Your task to perform on an android device: star an email in the gmail app Image 0: 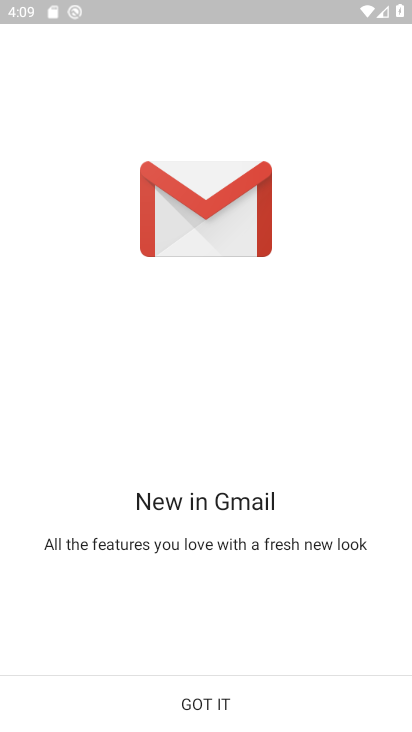
Step 0: press home button
Your task to perform on an android device: star an email in the gmail app Image 1: 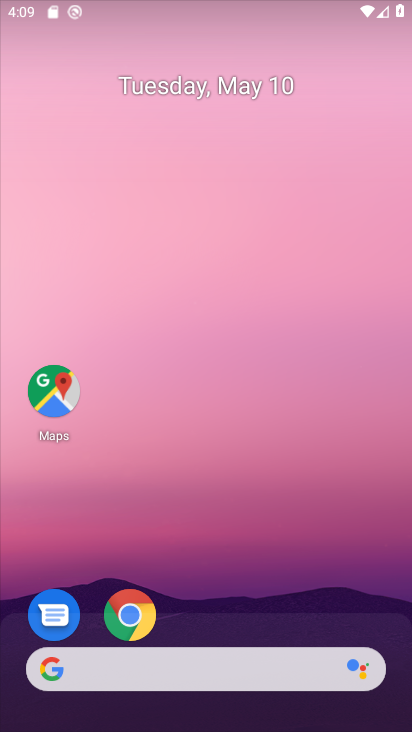
Step 1: drag from (247, 670) to (326, 136)
Your task to perform on an android device: star an email in the gmail app Image 2: 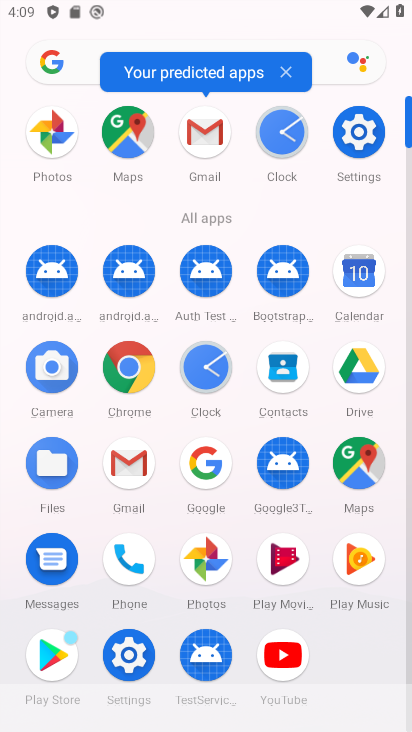
Step 2: click (126, 462)
Your task to perform on an android device: star an email in the gmail app Image 3: 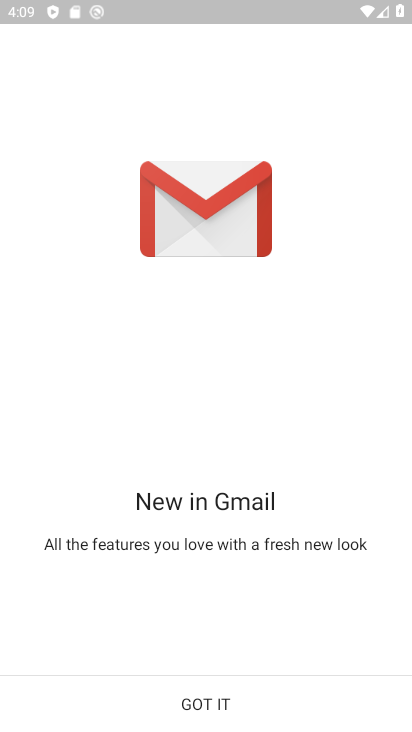
Step 3: click (205, 697)
Your task to perform on an android device: star an email in the gmail app Image 4: 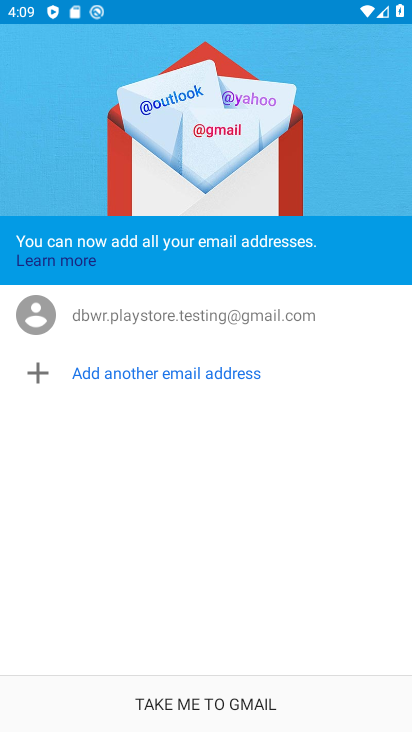
Step 4: click (230, 697)
Your task to perform on an android device: star an email in the gmail app Image 5: 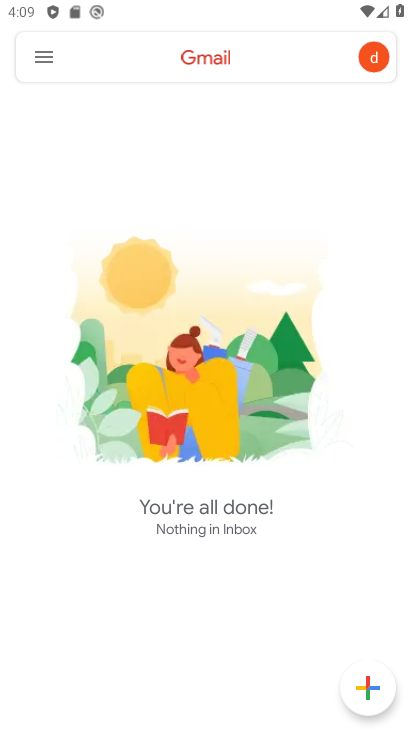
Step 5: click (62, 65)
Your task to perform on an android device: star an email in the gmail app Image 6: 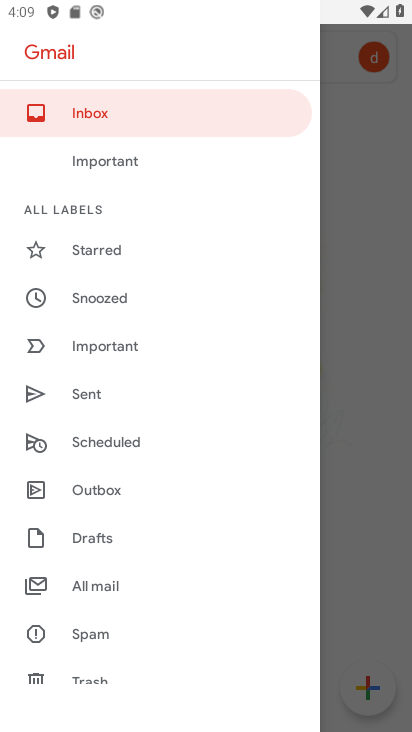
Step 6: click (137, 586)
Your task to perform on an android device: star an email in the gmail app Image 7: 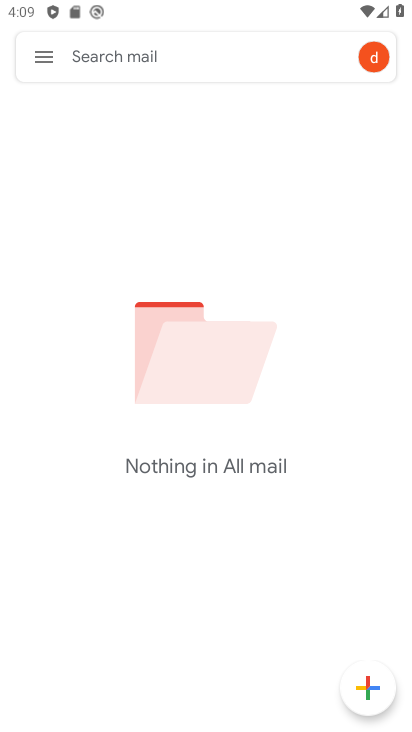
Step 7: task complete